Your task to perform on an android device: Go to Android settings Image 0: 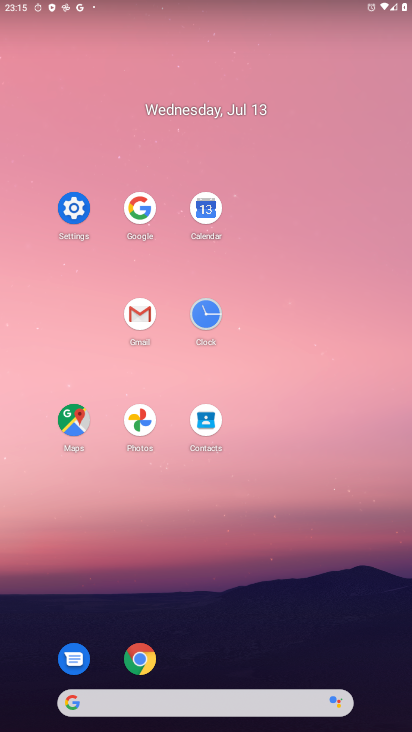
Step 0: click (74, 207)
Your task to perform on an android device: Go to Android settings Image 1: 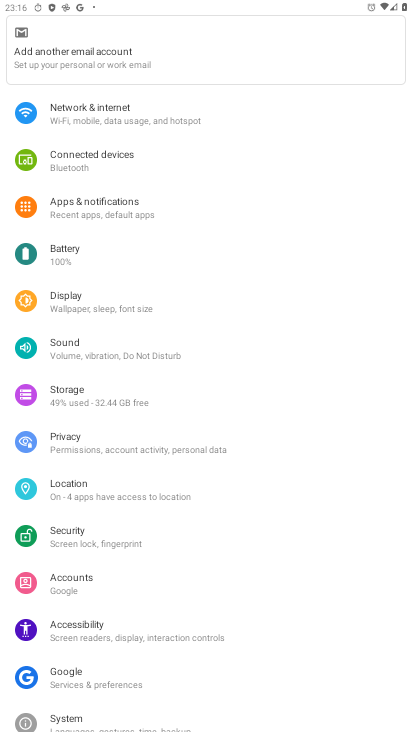
Step 1: task complete